Your task to perform on an android device: Open Chrome and go to the settings page Image 0: 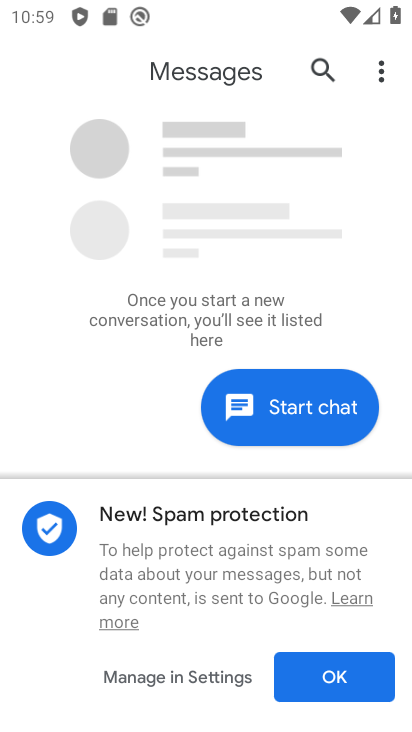
Step 0: press home button
Your task to perform on an android device: Open Chrome and go to the settings page Image 1: 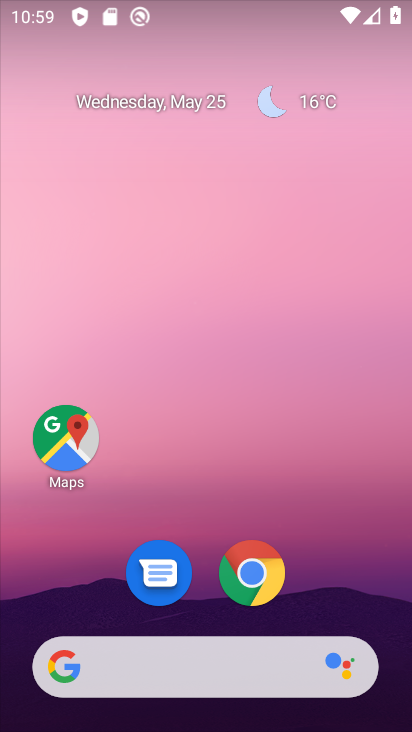
Step 1: click (252, 571)
Your task to perform on an android device: Open Chrome and go to the settings page Image 2: 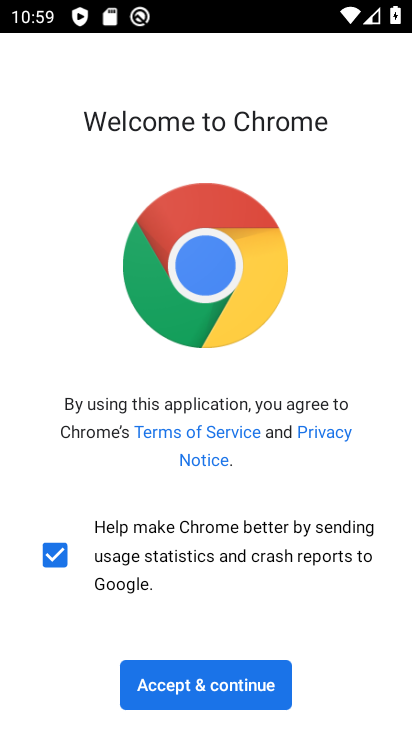
Step 2: click (198, 687)
Your task to perform on an android device: Open Chrome and go to the settings page Image 3: 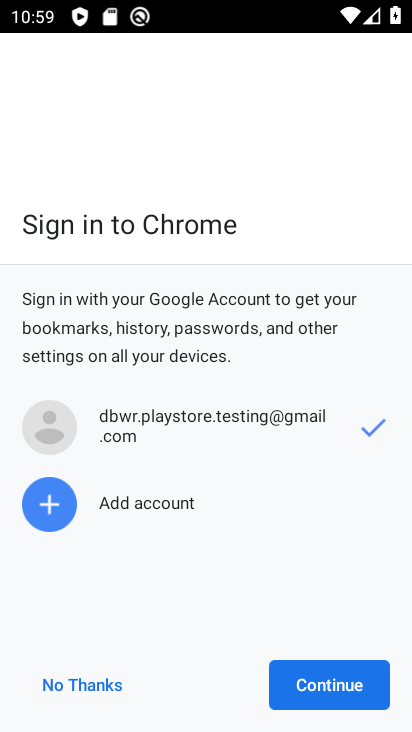
Step 3: click (76, 676)
Your task to perform on an android device: Open Chrome and go to the settings page Image 4: 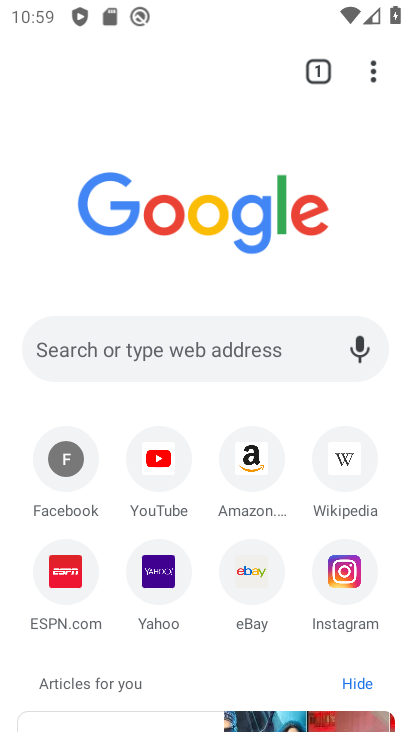
Step 4: click (372, 68)
Your task to perform on an android device: Open Chrome and go to the settings page Image 5: 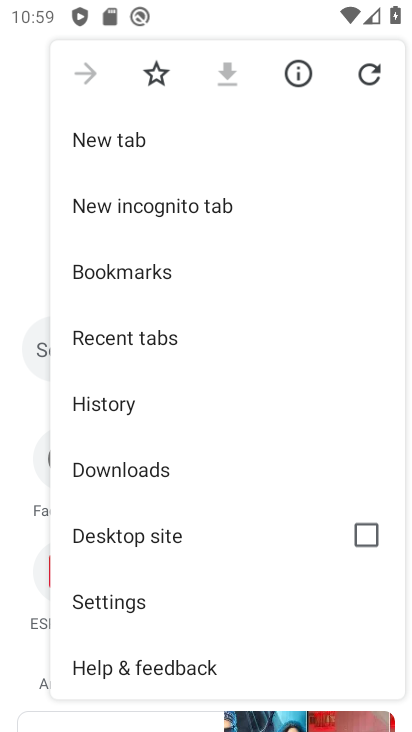
Step 5: click (97, 604)
Your task to perform on an android device: Open Chrome and go to the settings page Image 6: 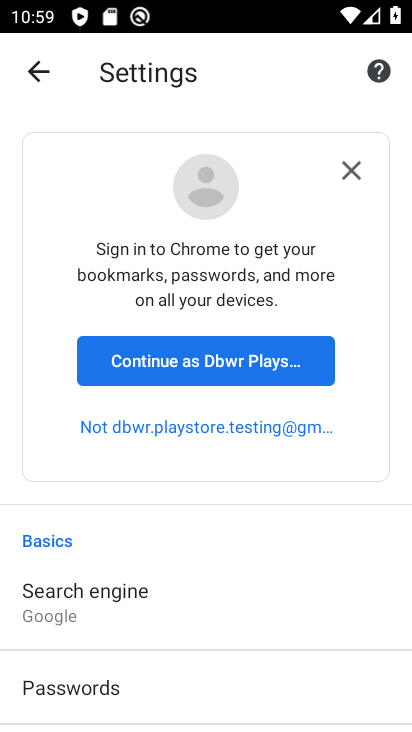
Step 6: task complete